Your task to perform on an android device: turn off airplane mode Image 0: 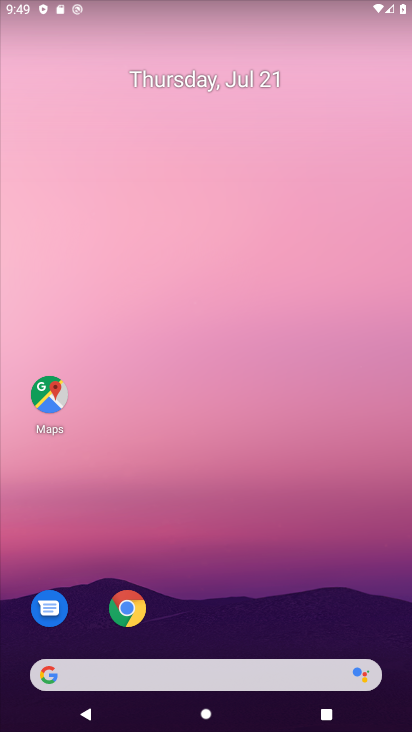
Step 0: drag from (184, 552) to (132, 197)
Your task to perform on an android device: turn off airplane mode Image 1: 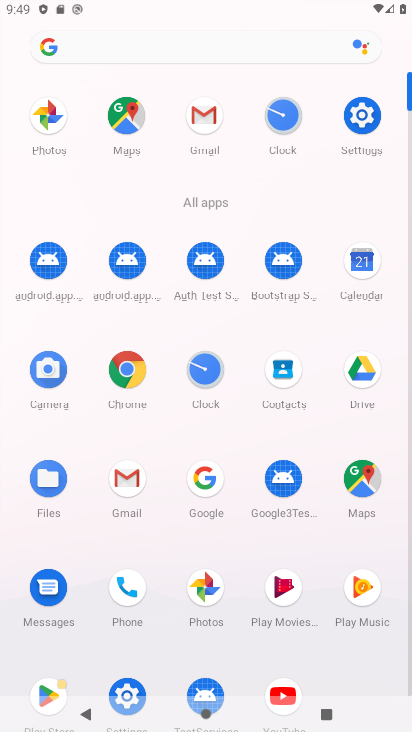
Step 1: click (377, 105)
Your task to perform on an android device: turn off airplane mode Image 2: 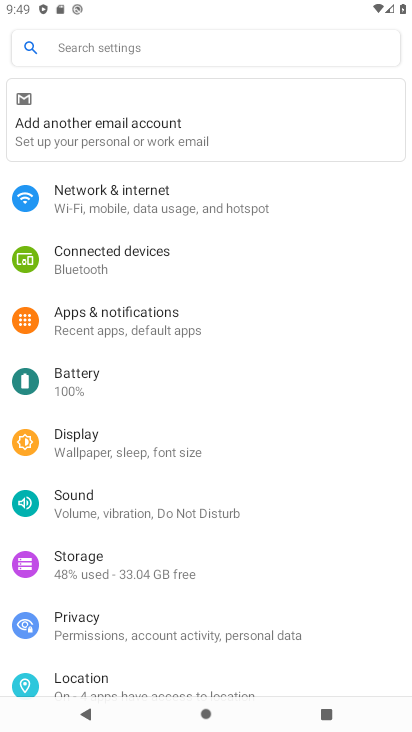
Step 2: click (124, 184)
Your task to perform on an android device: turn off airplane mode Image 3: 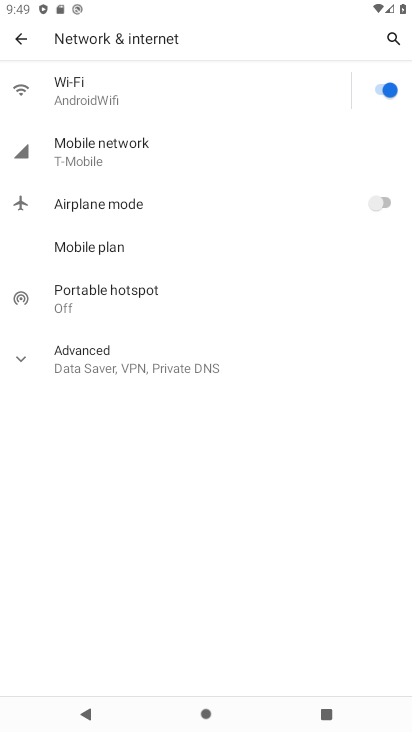
Step 3: task complete